Your task to perform on an android device: turn off improve location accuracy Image 0: 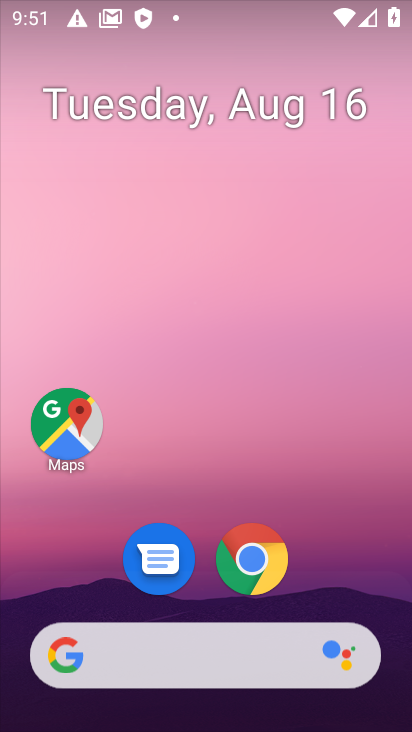
Step 0: drag from (156, 619) to (251, 73)
Your task to perform on an android device: turn off improve location accuracy Image 1: 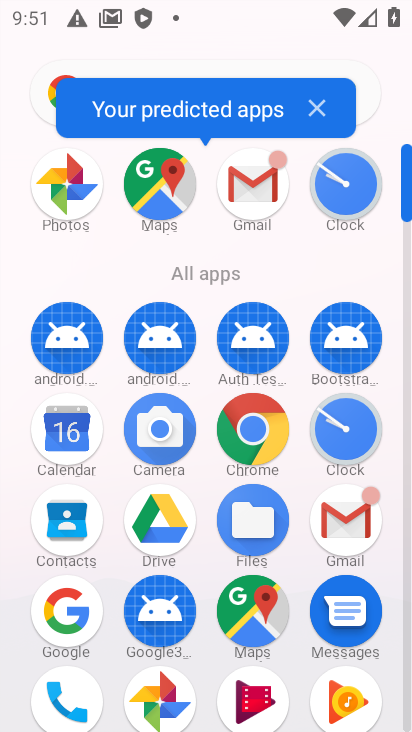
Step 1: drag from (207, 632) to (305, 205)
Your task to perform on an android device: turn off improve location accuracy Image 2: 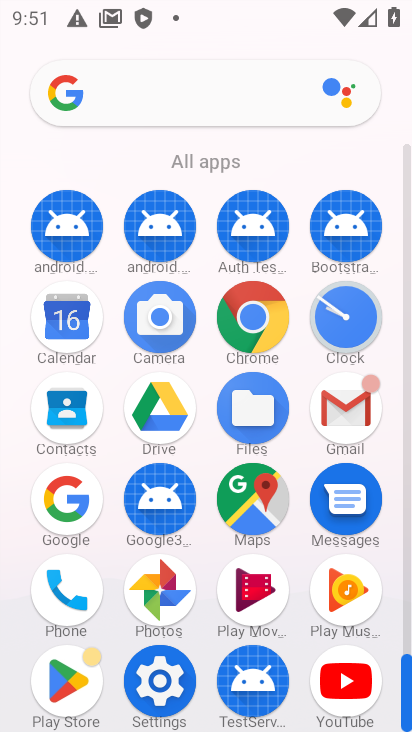
Step 2: click (163, 676)
Your task to perform on an android device: turn off improve location accuracy Image 3: 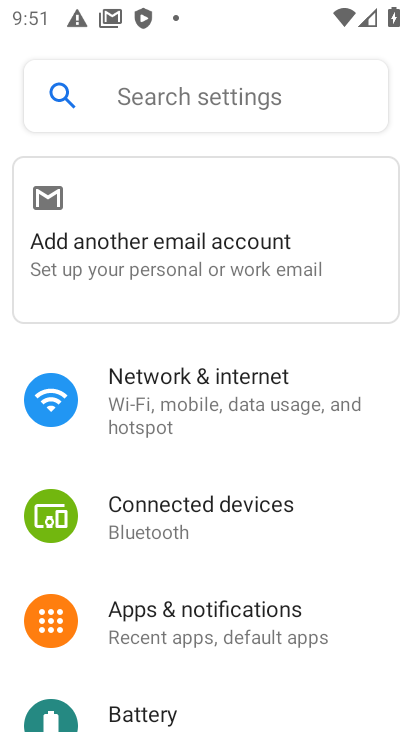
Step 3: drag from (264, 614) to (360, 69)
Your task to perform on an android device: turn off improve location accuracy Image 4: 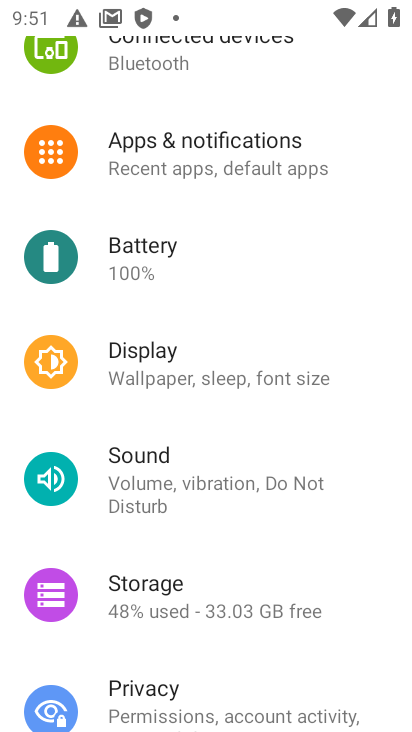
Step 4: drag from (258, 639) to (375, 211)
Your task to perform on an android device: turn off improve location accuracy Image 5: 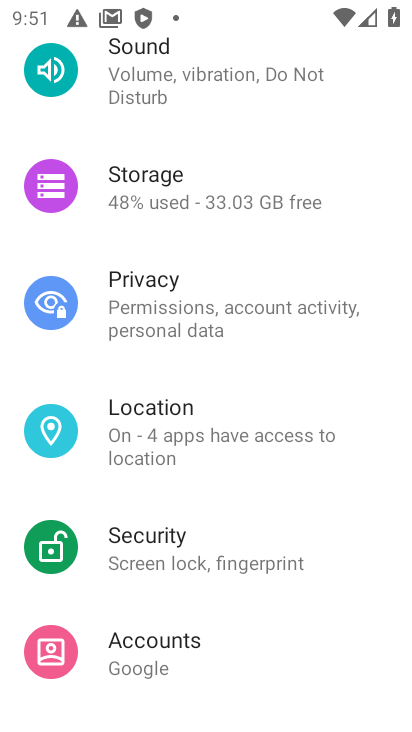
Step 5: click (190, 421)
Your task to perform on an android device: turn off improve location accuracy Image 6: 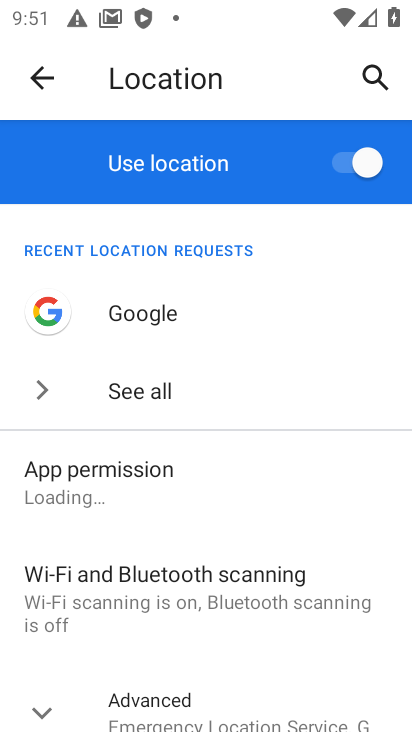
Step 6: drag from (261, 626) to (356, 35)
Your task to perform on an android device: turn off improve location accuracy Image 7: 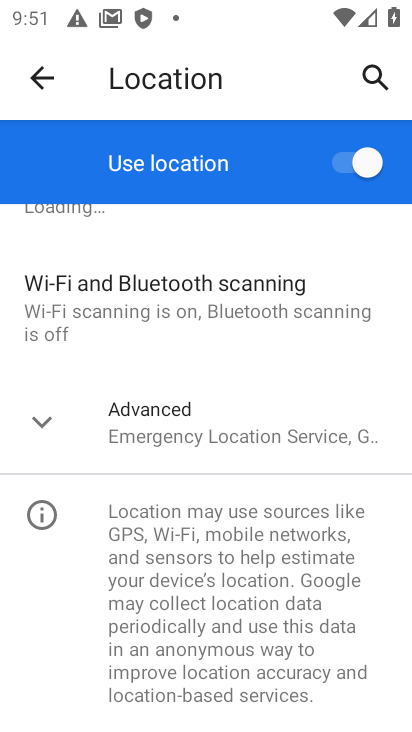
Step 7: click (177, 411)
Your task to perform on an android device: turn off improve location accuracy Image 8: 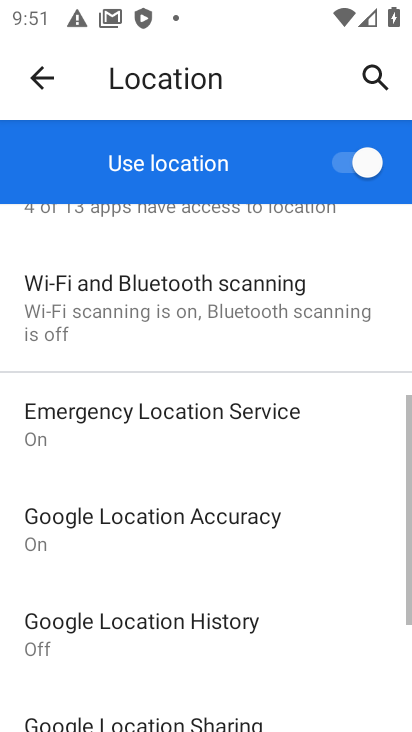
Step 8: click (136, 513)
Your task to perform on an android device: turn off improve location accuracy Image 9: 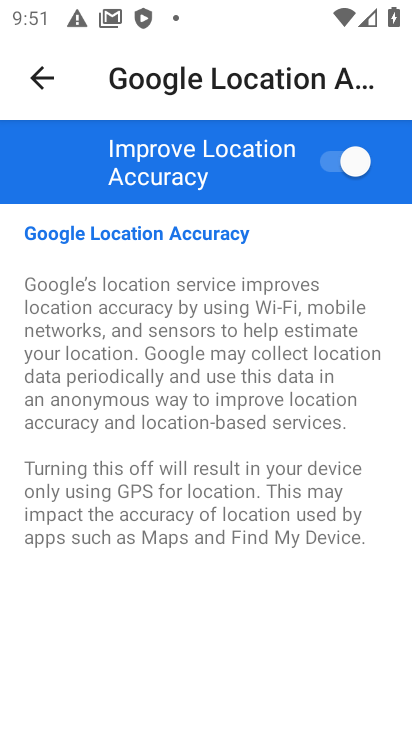
Step 9: click (327, 160)
Your task to perform on an android device: turn off improve location accuracy Image 10: 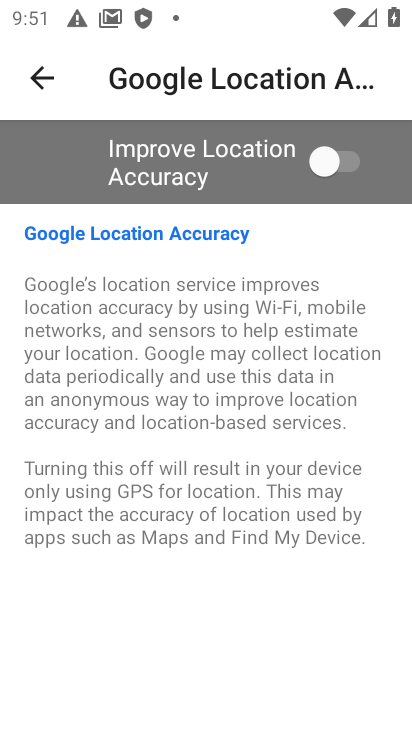
Step 10: task complete